Your task to perform on an android device: Do I have any events this weekend? Image 0: 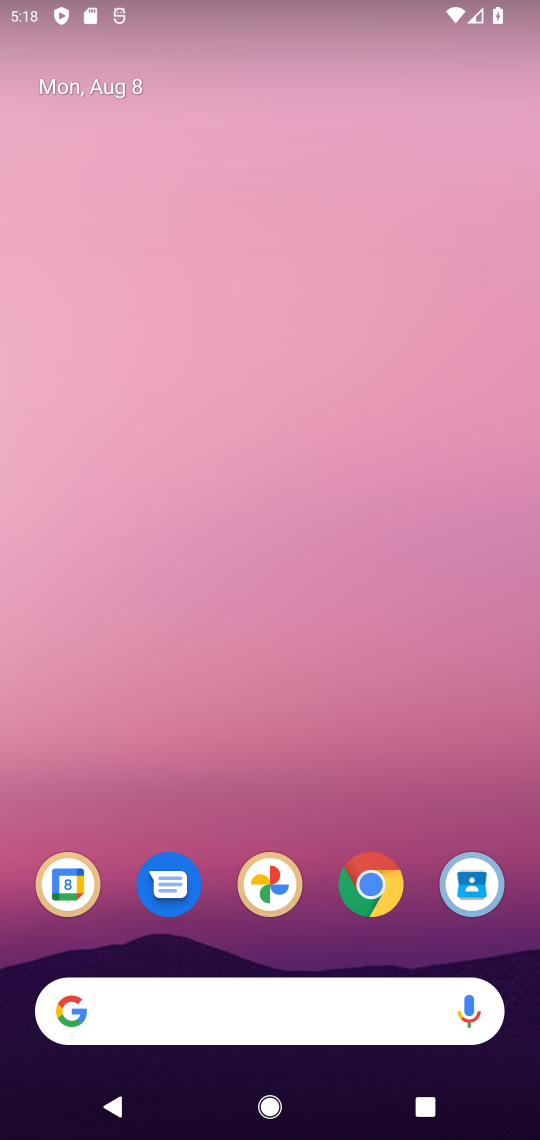
Step 0: click (67, 876)
Your task to perform on an android device: Do I have any events this weekend? Image 1: 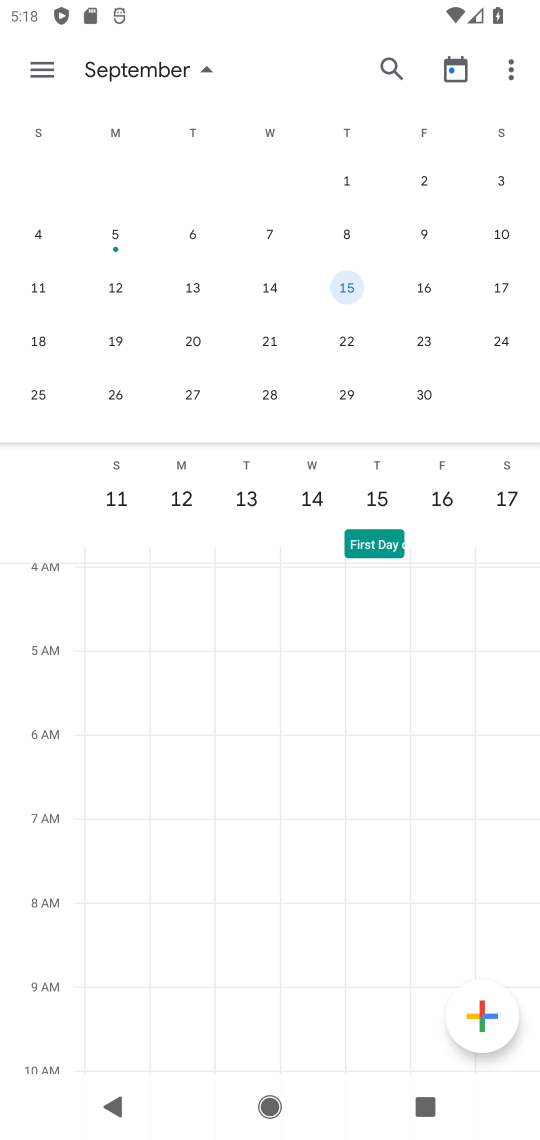
Step 1: click (49, 81)
Your task to perform on an android device: Do I have any events this weekend? Image 2: 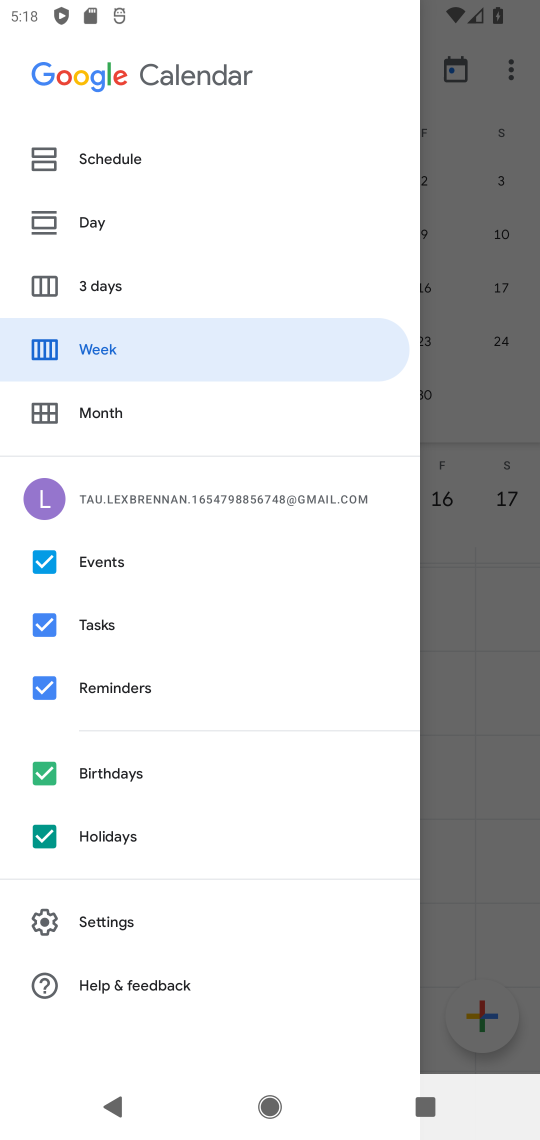
Step 2: click (94, 291)
Your task to perform on an android device: Do I have any events this weekend? Image 3: 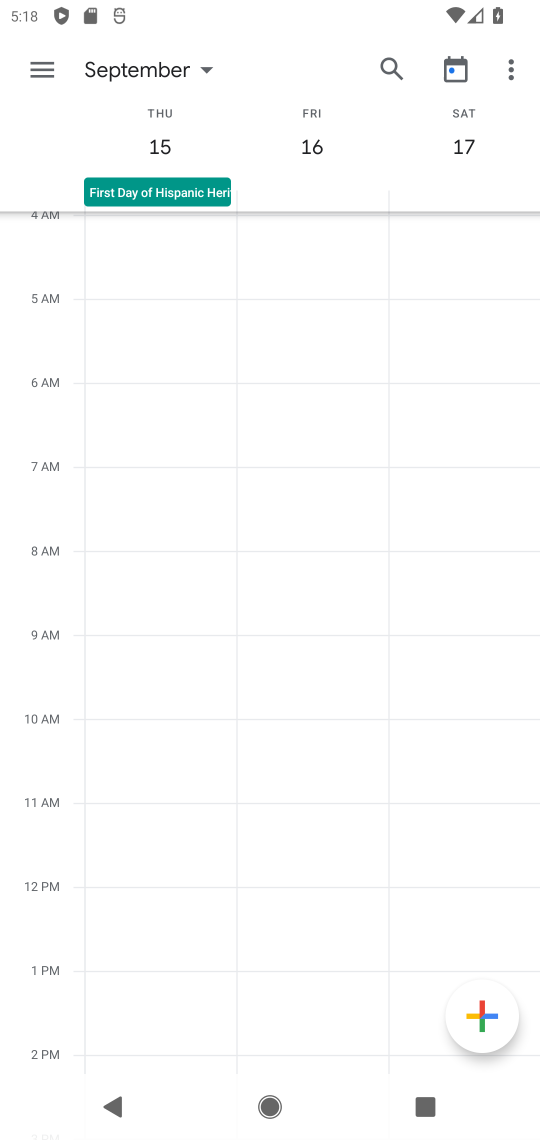
Step 3: click (32, 62)
Your task to perform on an android device: Do I have any events this weekend? Image 4: 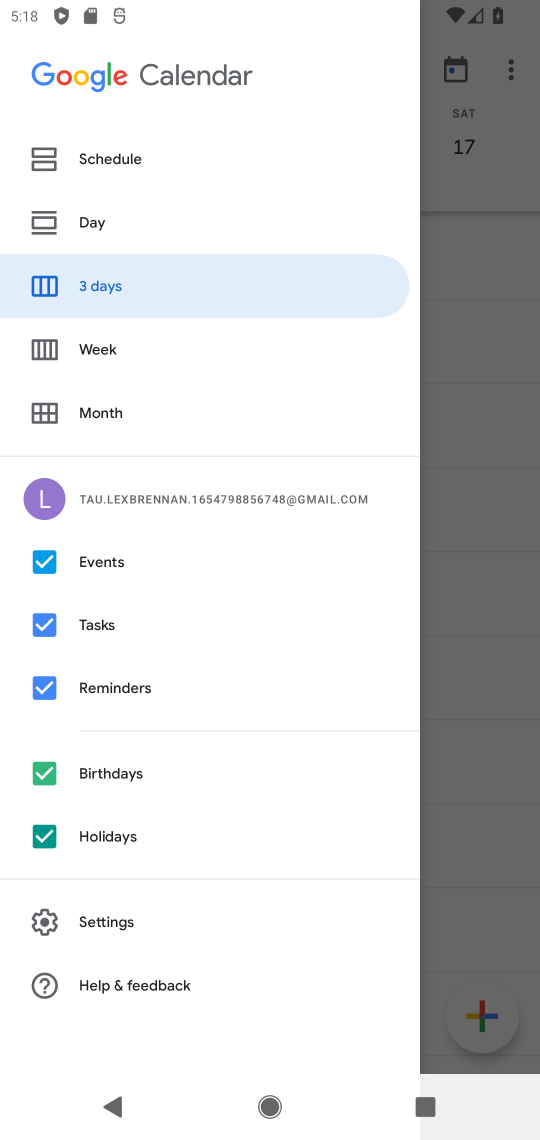
Step 4: click (45, 854)
Your task to perform on an android device: Do I have any events this weekend? Image 5: 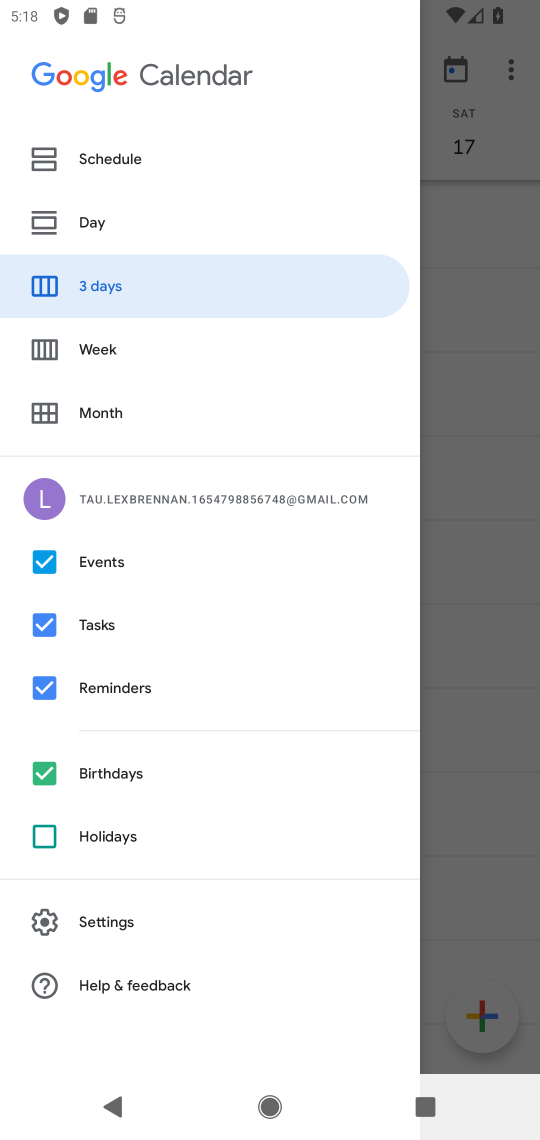
Step 5: click (49, 767)
Your task to perform on an android device: Do I have any events this weekend? Image 6: 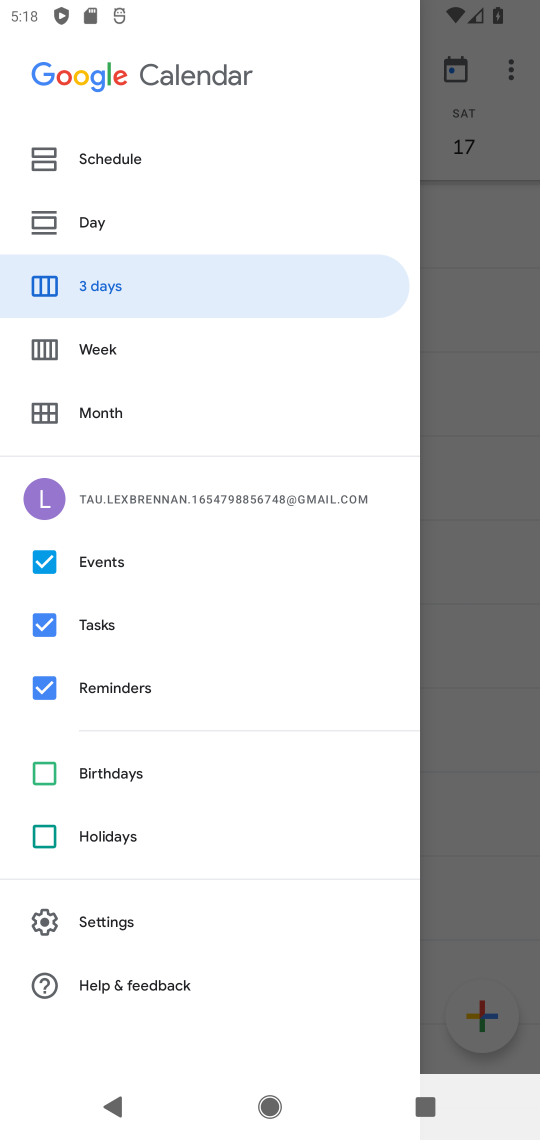
Step 6: click (44, 689)
Your task to perform on an android device: Do I have any events this weekend? Image 7: 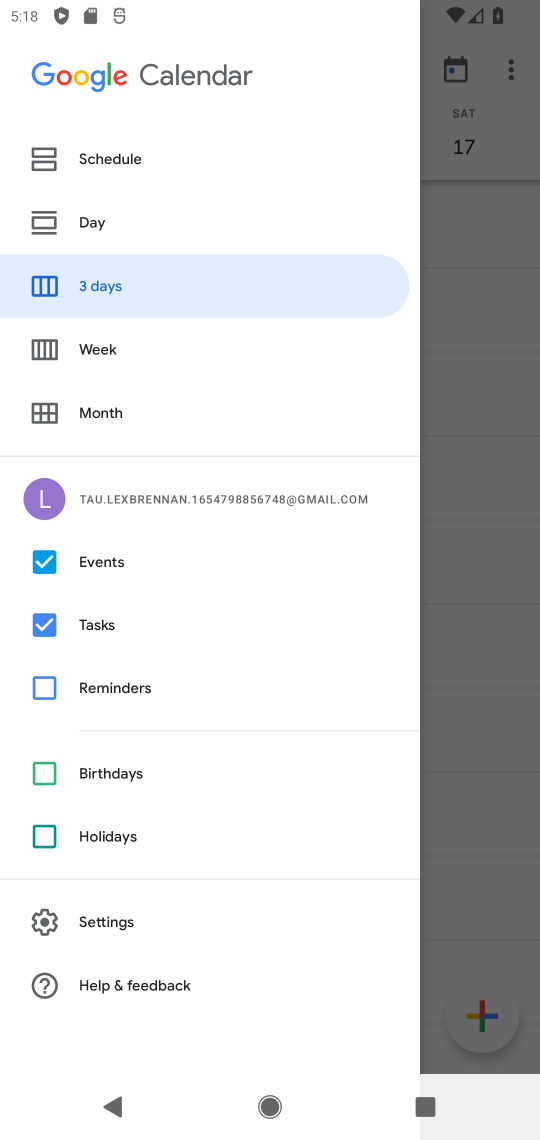
Step 7: click (38, 622)
Your task to perform on an android device: Do I have any events this weekend? Image 8: 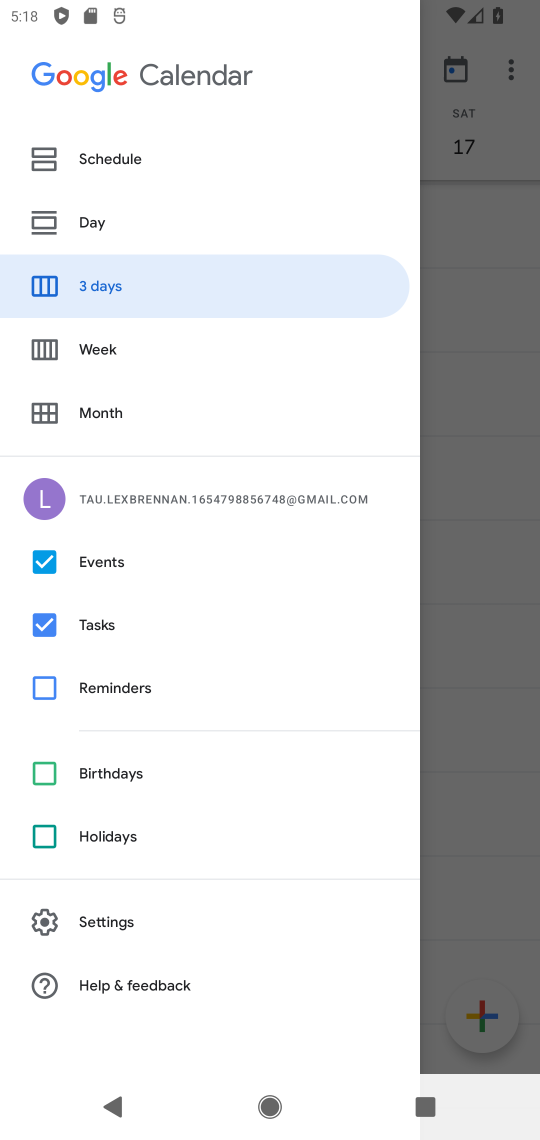
Step 8: click (42, 630)
Your task to perform on an android device: Do I have any events this weekend? Image 9: 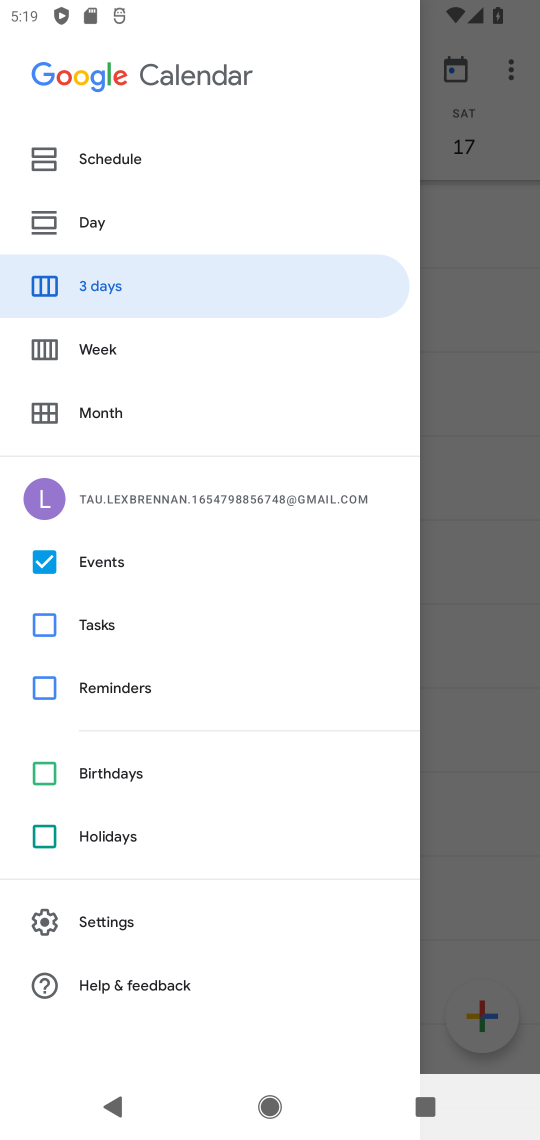
Step 9: click (237, 284)
Your task to perform on an android device: Do I have any events this weekend? Image 10: 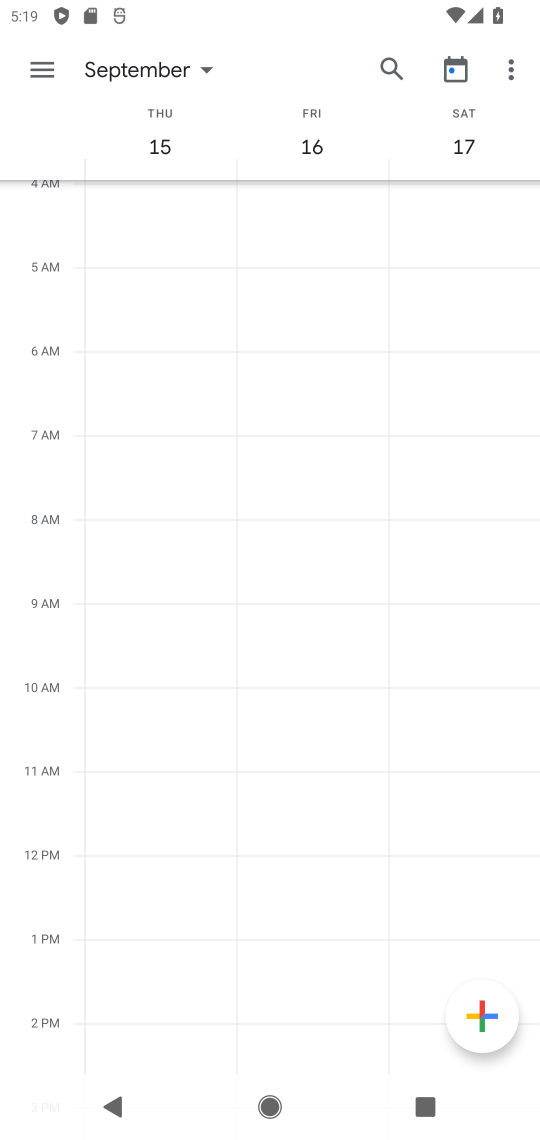
Step 10: click (195, 77)
Your task to perform on an android device: Do I have any events this weekend? Image 11: 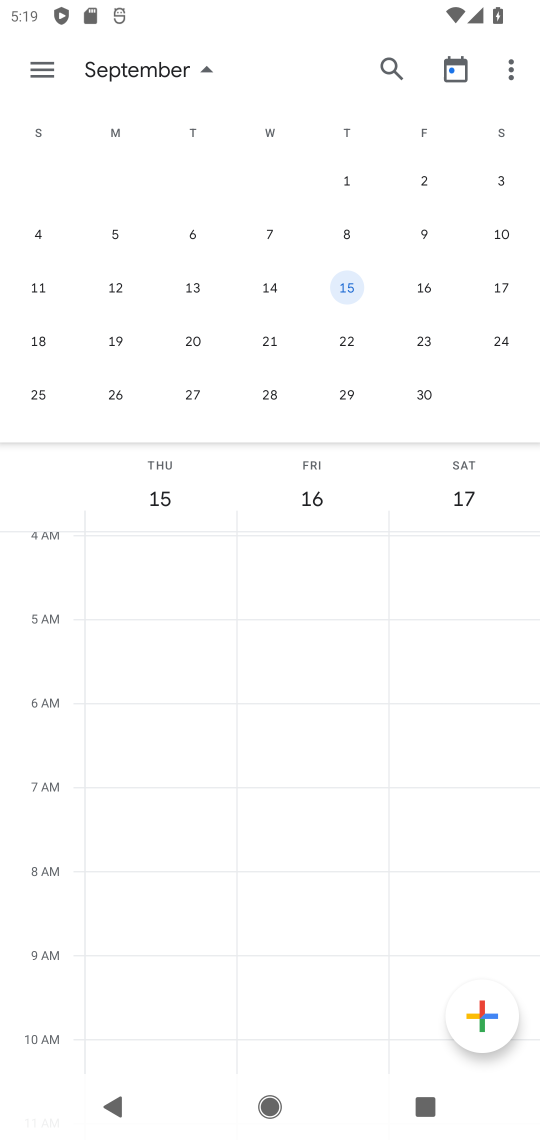
Step 11: drag from (81, 305) to (452, 353)
Your task to perform on an android device: Do I have any events this weekend? Image 12: 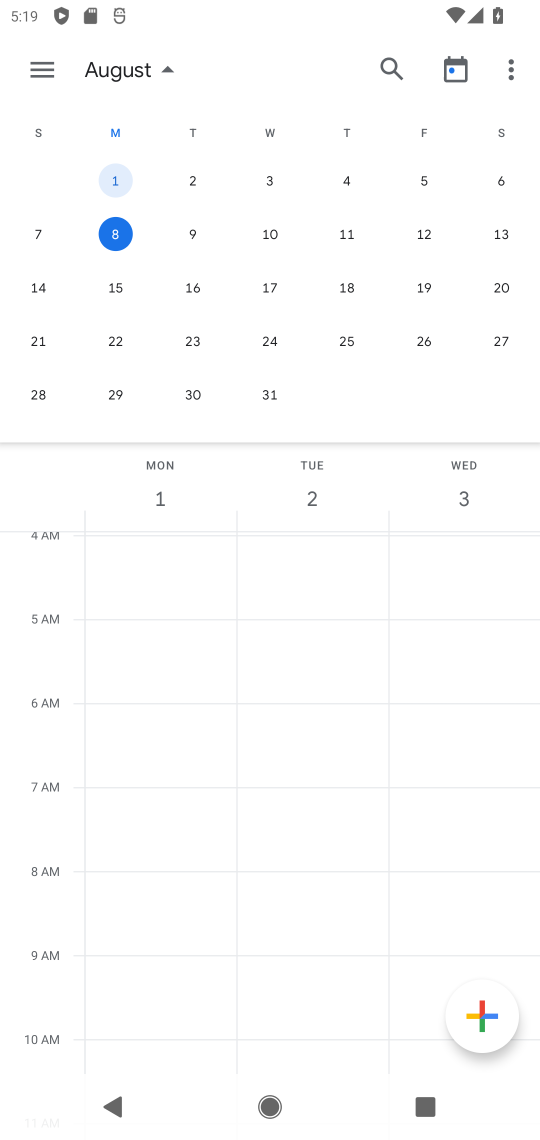
Step 12: click (434, 244)
Your task to perform on an android device: Do I have any events this weekend? Image 13: 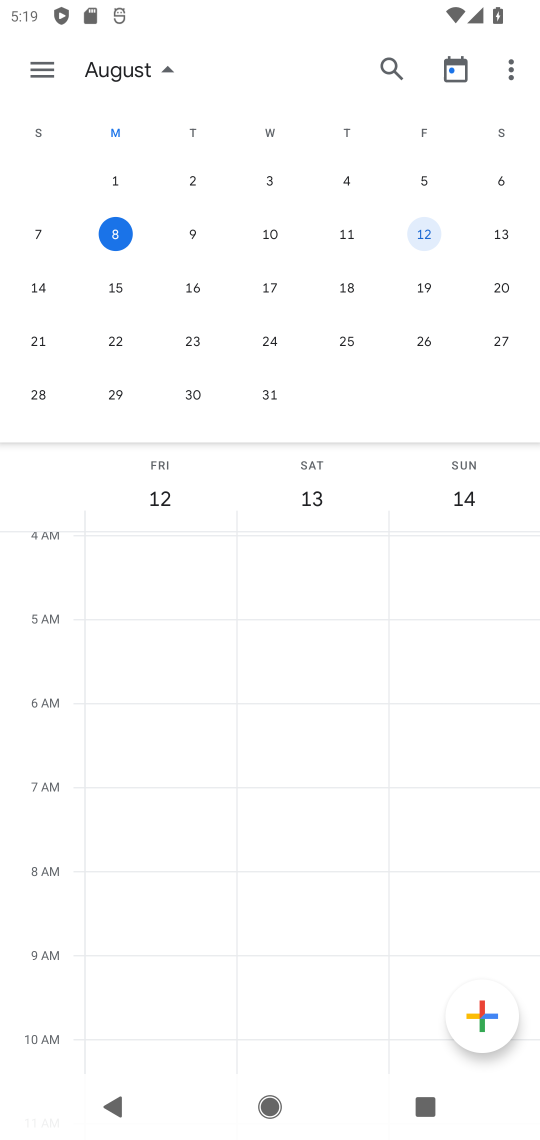
Step 13: task complete